Your task to perform on an android device: clear history in the chrome app Image 0: 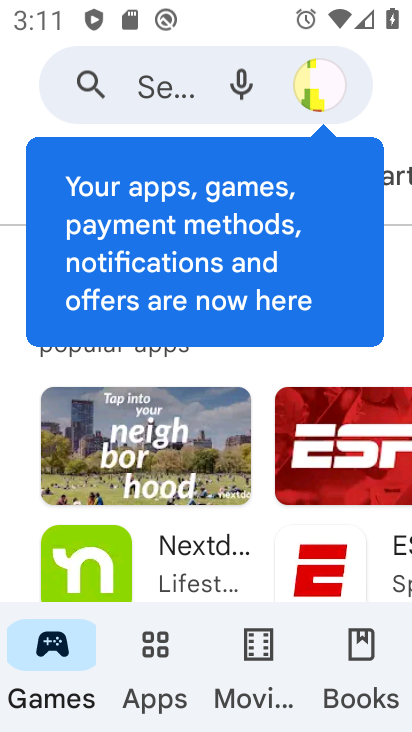
Step 0: press home button
Your task to perform on an android device: clear history in the chrome app Image 1: 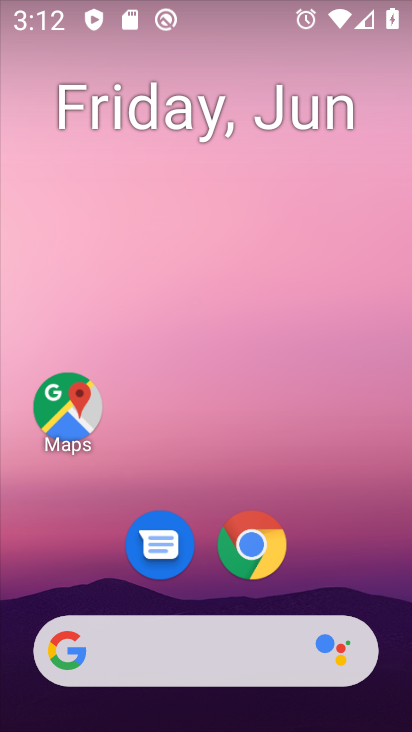
Step 1: click (271, 538)
Your task to perform on an android device: clear history in the chrome app Image 2: 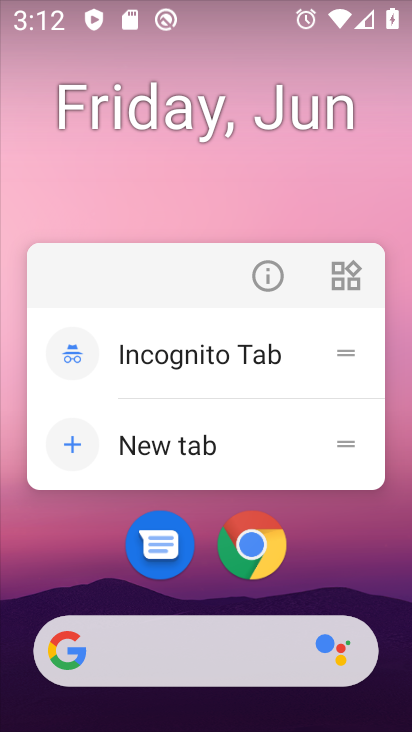
Step 2: click (274, 555)
Your task to perform on an android device: clear history in the chrome app Image 3: 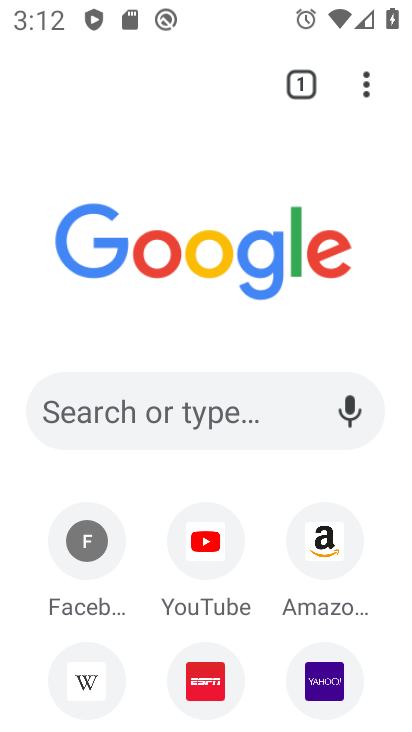
Step 3: click (360, 78)
Your task to perform on an android device: clear history in the chrome app Image 4: 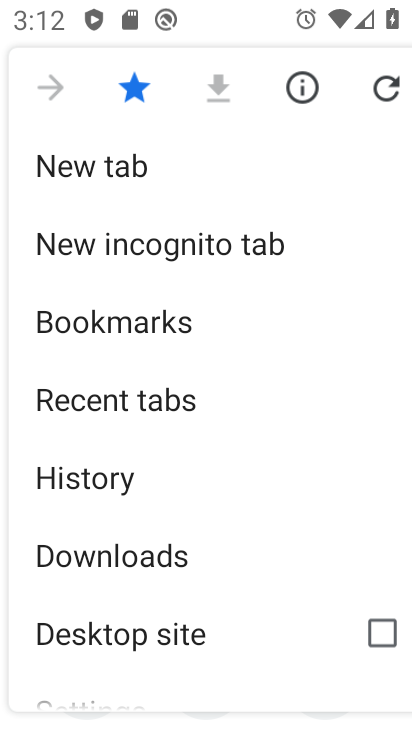
Step 4: click (167, 480)
Your task to perform on an android device: clear history in the chrome app Image 5: 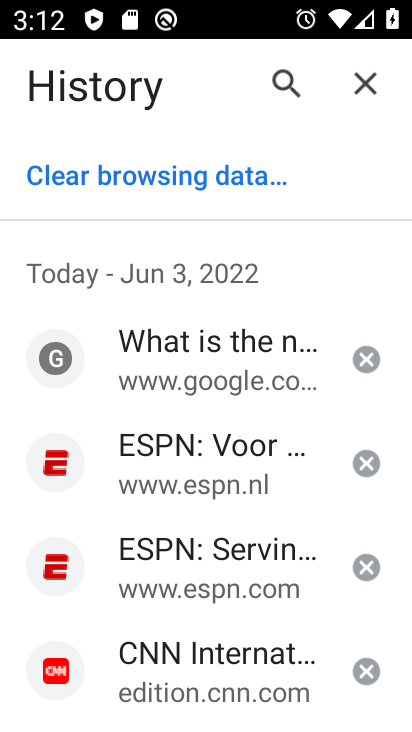
Step 5: click (161, 175)
Your task to perform on an android device: clear history in the chrome app Image 6: 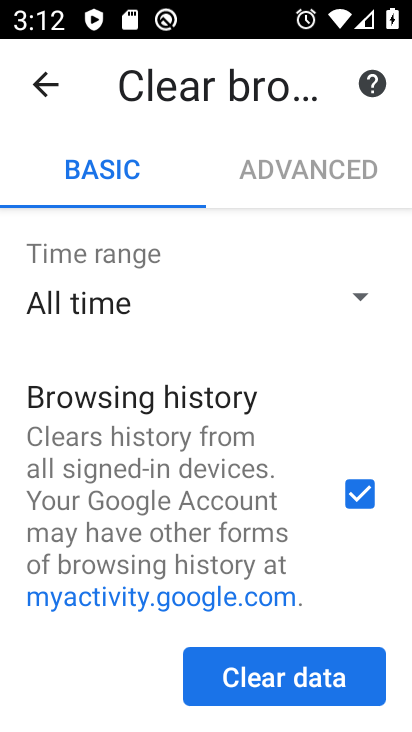
Step 6: click (275, 655)
Your task to perform on an android device: clear history in the chrome app Image 7: 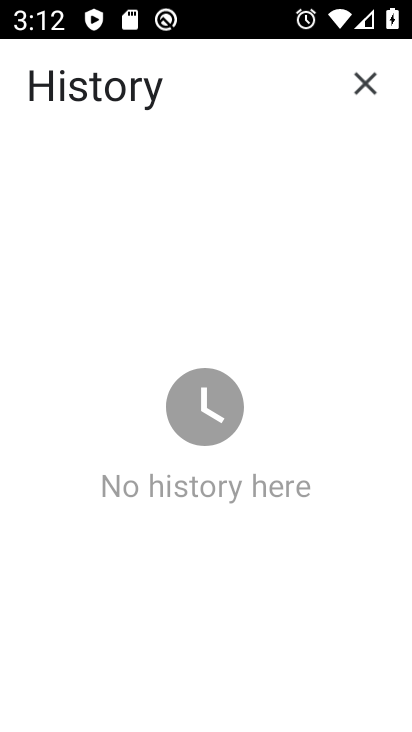
Step 7: task complete